Your task to perform on an android device: read, delete, or share a saved page in the chrome app Image 0: 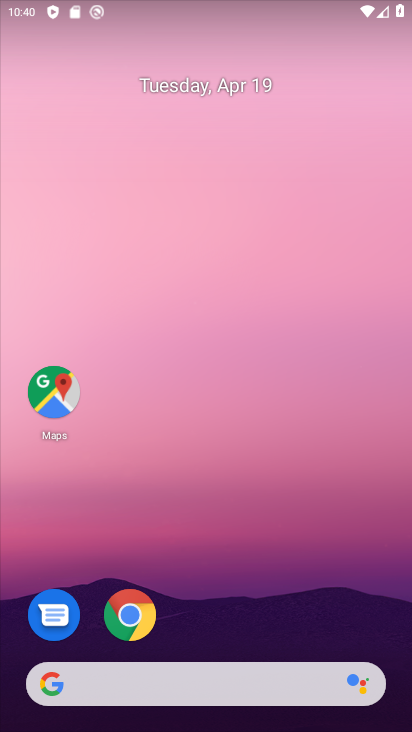
Step 0: click (128, 613)
Your task to perform on an android device: read, delete, or share a saved page in the chrome app Image 1: 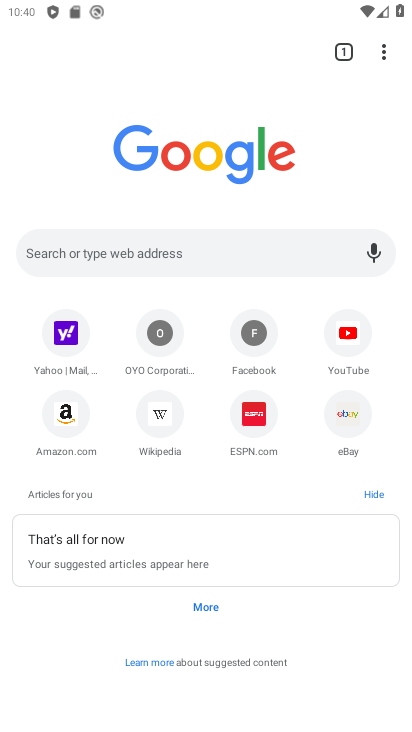
Step 1: click (379, 54)
Your task to perform on an android device: read, delete, or share a saved page in the chrome app Image 2: 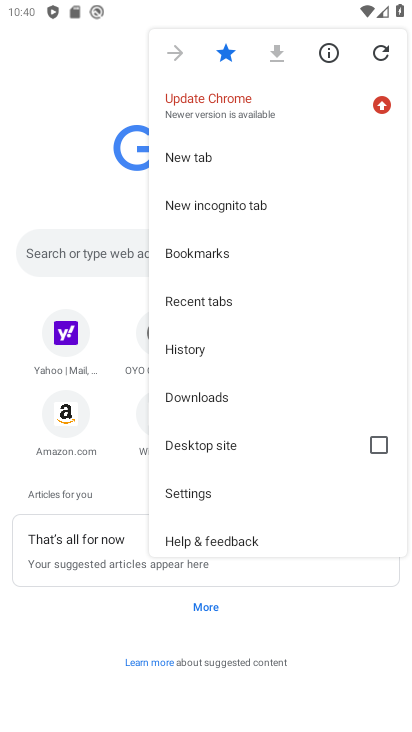
Step 2: click (213, 490)
Your task to perform on an android device: read, delete, or share a saved page in the chrome app Image 3: 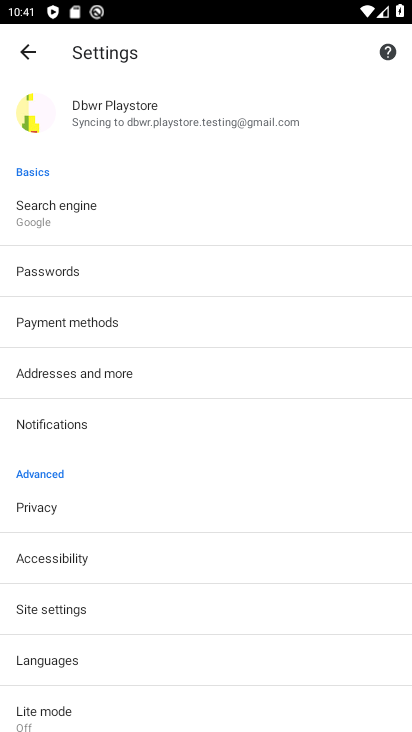
Step 3: drag from (227, 494) to (222, 263)
Your task to perform on an android device: read, delete, or share a saved page in the chrome app Image 4: 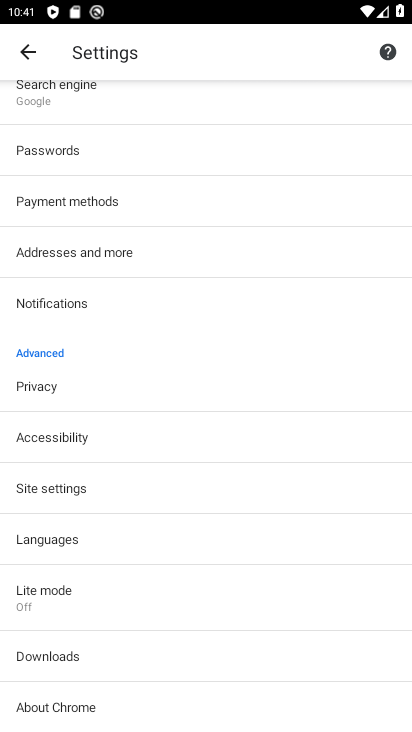
Step 4: drag from (154, 264) to (167, 208)
Your task to perform on an android device: read, delete, or share a saved page in the chrome app Image 5: 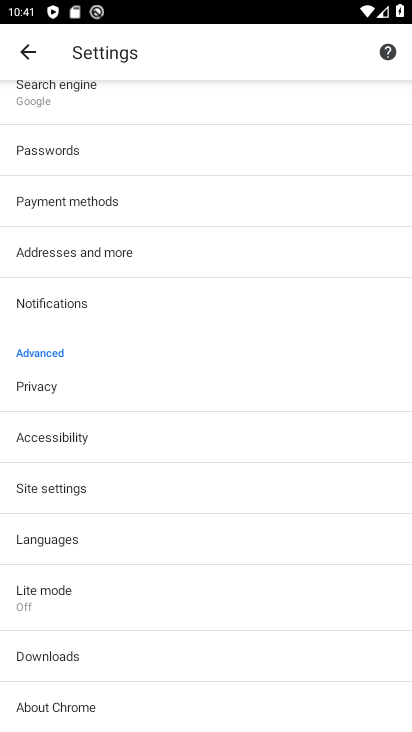
Step 5: click (74, 651)
Your task to perform on an android device: read, delete, or share a saved page in the chrome app Image 6: 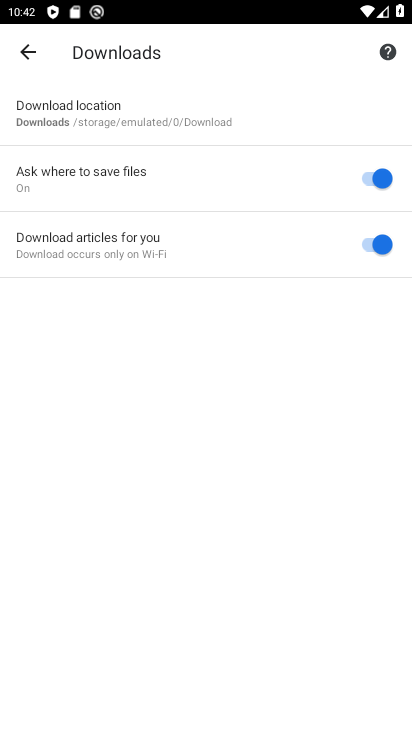
Step 6: task complete